Your task to perform on an android device: Go to accessibility settings Image 0: 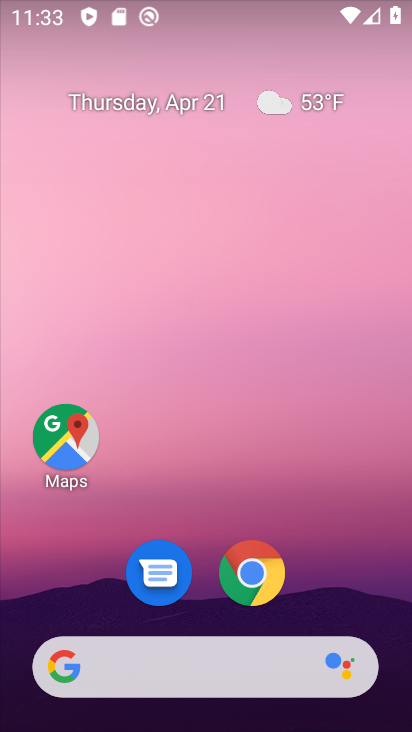
Step 0: drag from (172, 632) to (318, 60)
Your task to perform on an android device: Go to accessibility settings Image 1: 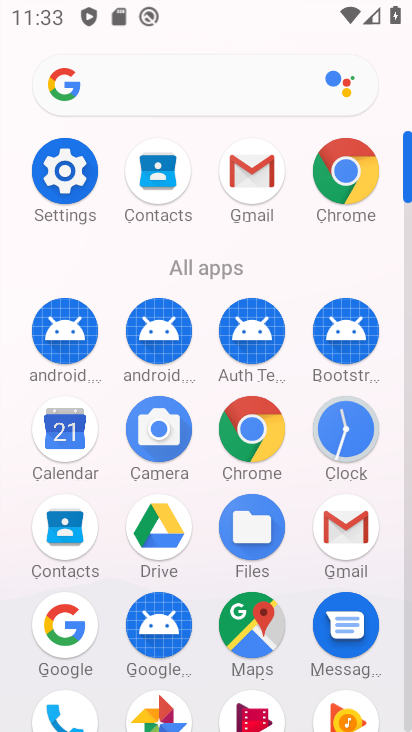
Step 1: click (82, 181)
Your task to perform on an android device: Go to accessibility settings Image 2: 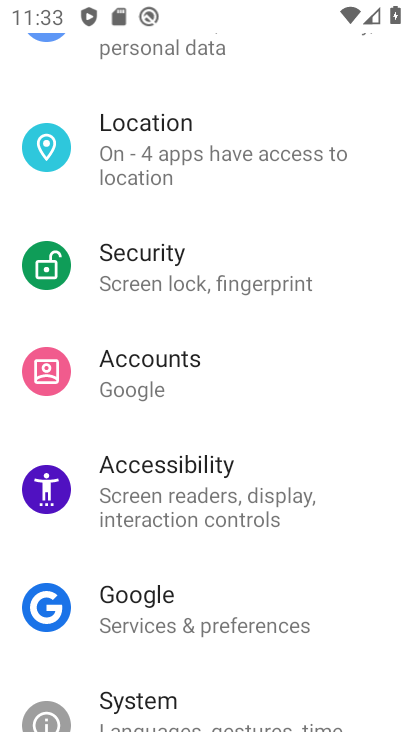
Step 2: click (177, 482)
Your task to perform on an android device: Go to accessibility settings Image 3: 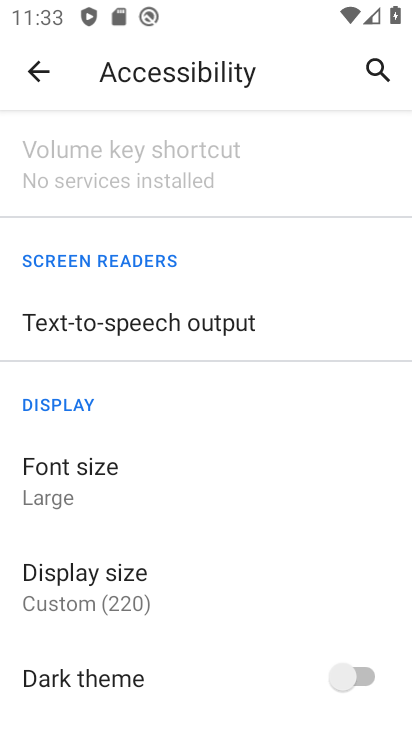
Step 3: task complete